Your task to perform on an android device: check data usage Image 0: 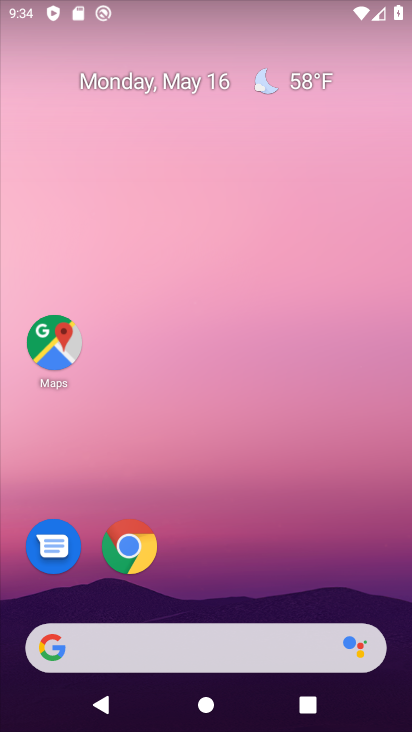
Step 0: drag from (303, 568) to (260, 88)
Your task to perform on an android device: check data usage Image 1: 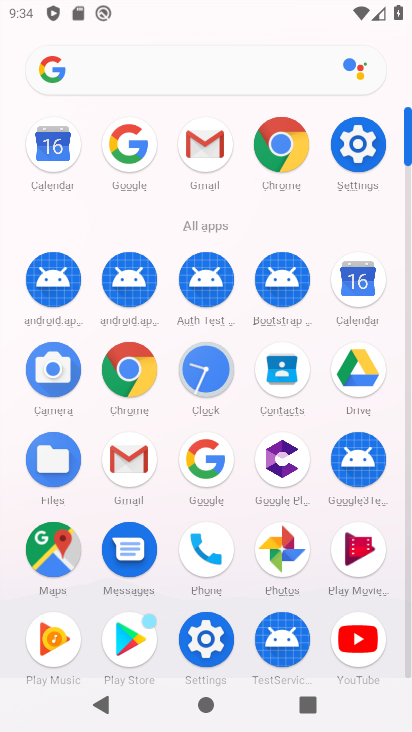
Step 1: click (356, 145)
Your task to perform on an android device: check data usage Image 2: 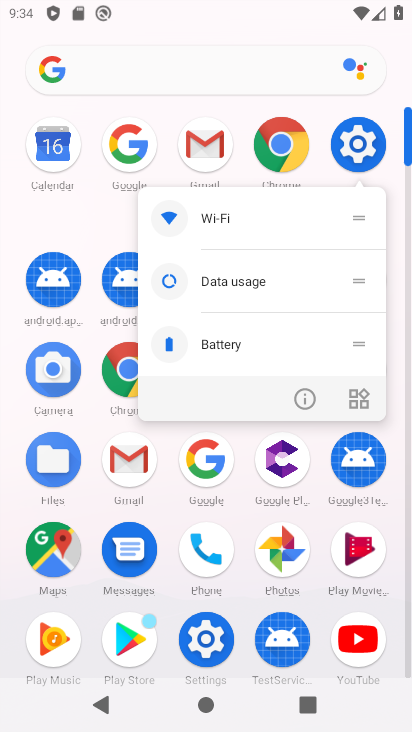
Step 2: click (236, 287)
Your task to perform on an android device: check data usage Image 3: 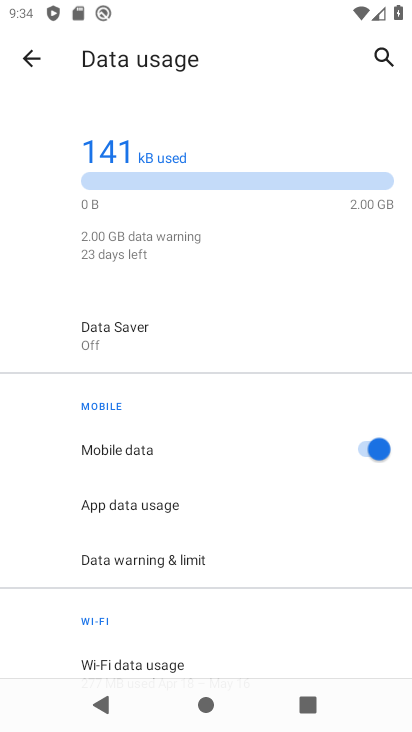
Step 3: task complete